Your task to perform on an android device: turn on sleep mode Image 0: 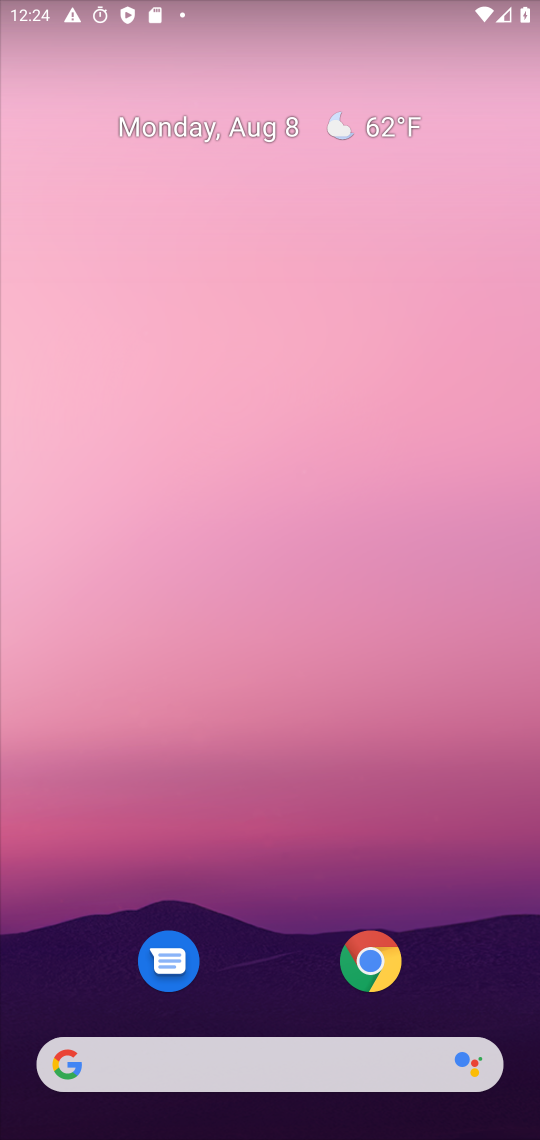
Step 0: drag from (278, 1043) to (246, 17)
Your task to perform on an android device: turn on sleep mode Image 1: 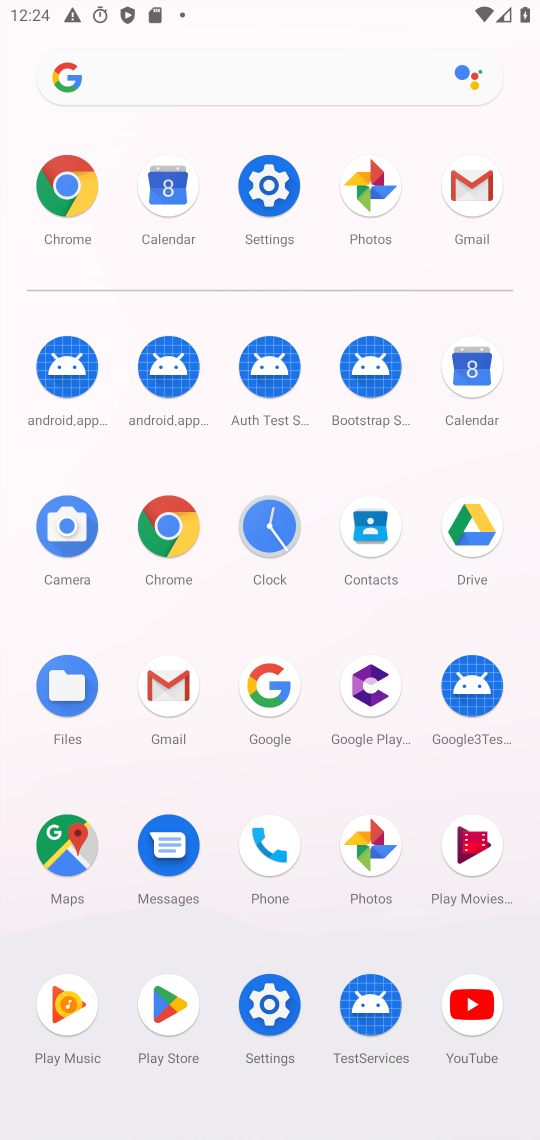
Step 1: click (257, 196)
Your task to perform on an android device: turn on sleep mode Image 2: 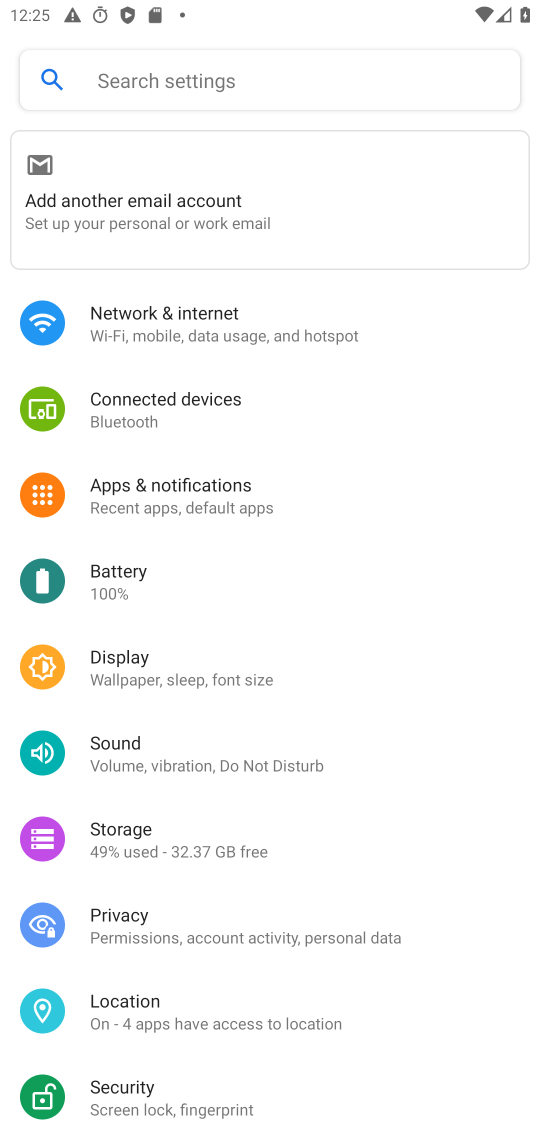
Step 2: click (256, 687)
Your task to perform on an android device: turn on sleep mode Image 3: 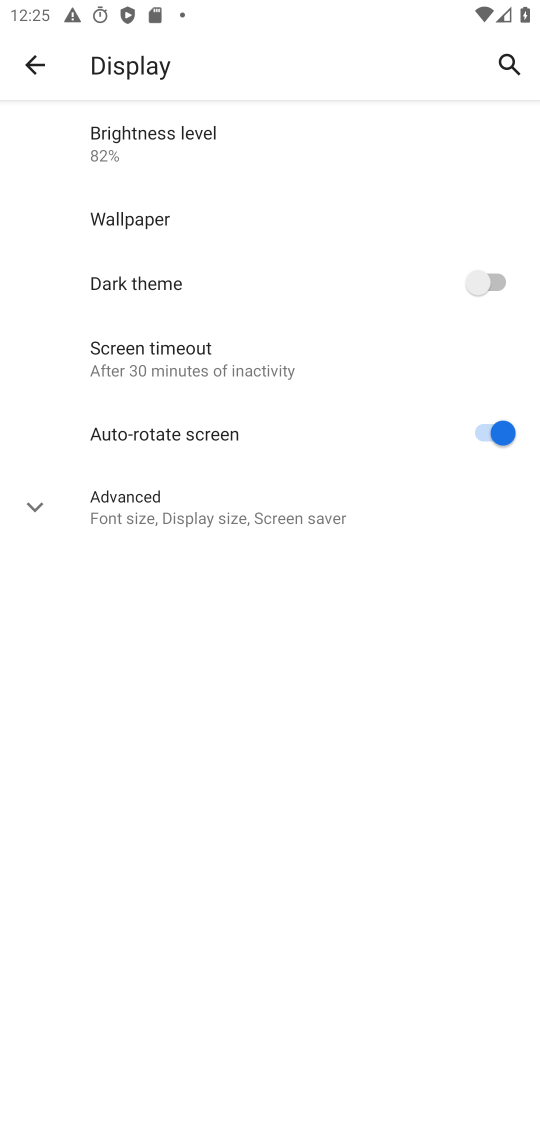
Step 3: task complete